Your task to perform on an android device: Open network settings Image 0: 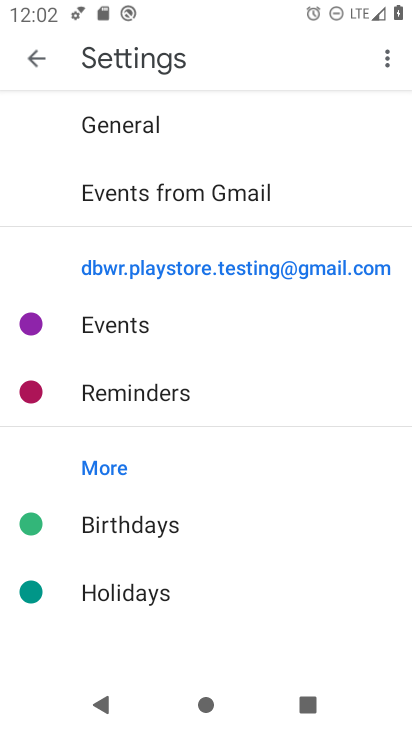
Step 0: press back button
Your task to perform on an android device: Open network settings Image 1: 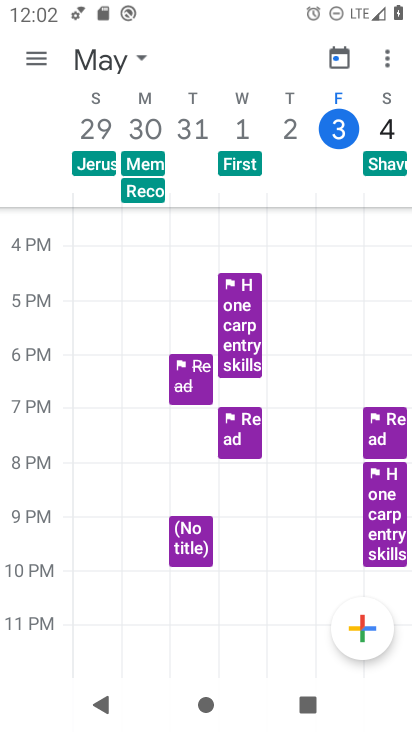
Step 1: press back button
Your task to perform on an android device: Open network settings Image 2: 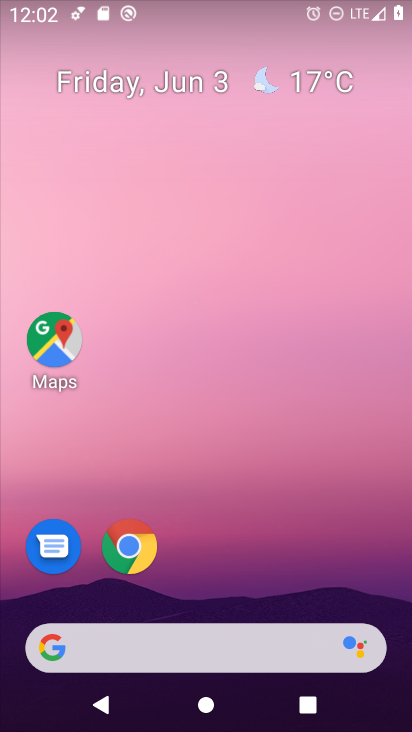
Step 2: drag from (232, 569) to (227, 32)
Your task to perform on an android device: Open network settings Image 3: 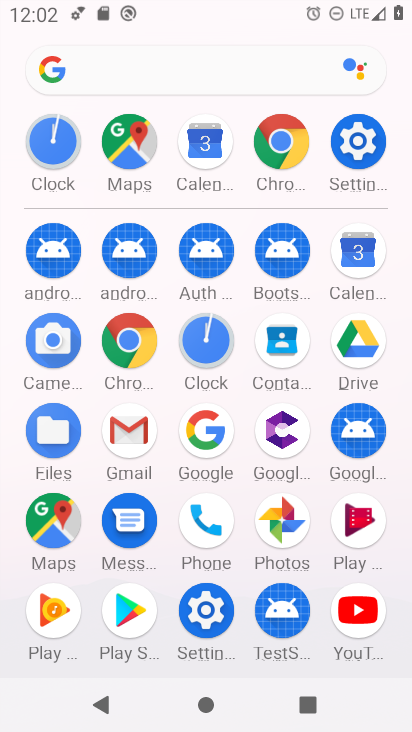
Step 3: click (206, 607)
Your task to perform on an android device: Open network settings Image 4: 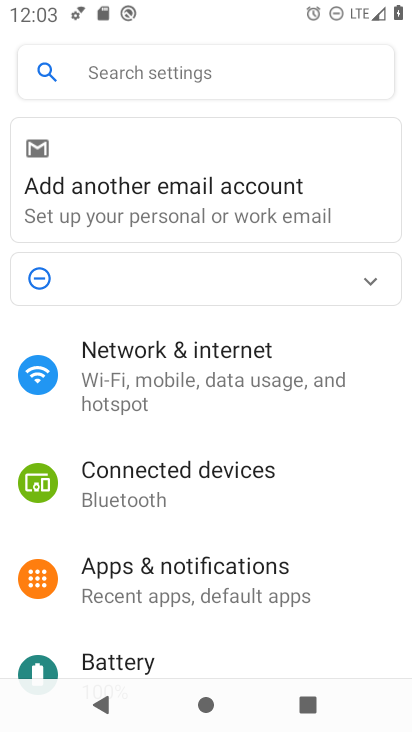
Step 4: click (181, 403)
Your task to perform on an android device: Open network settings Image 5: 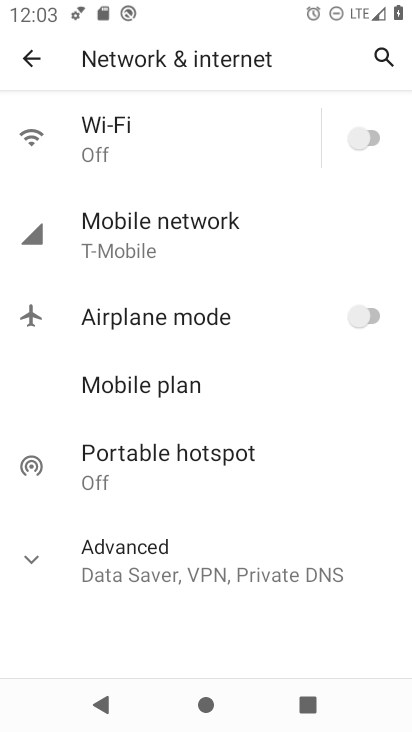
Step 5: click (38, 556)
Your task to perform on an android device: Open network settings Image 6: 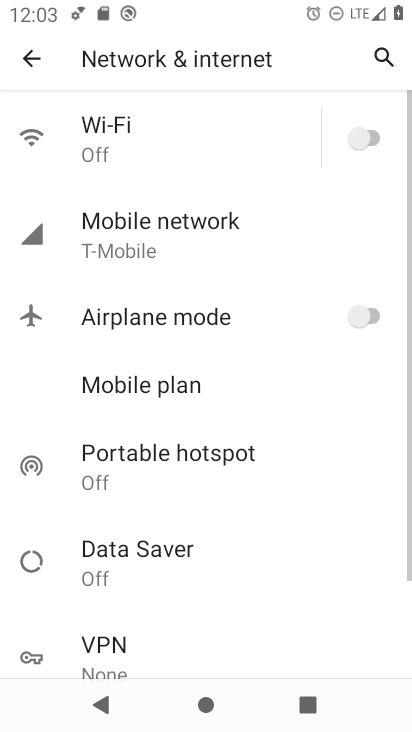
Step 6: task complete